Your task to perform on an android device: turn on javascript in the chrome app Image 0: 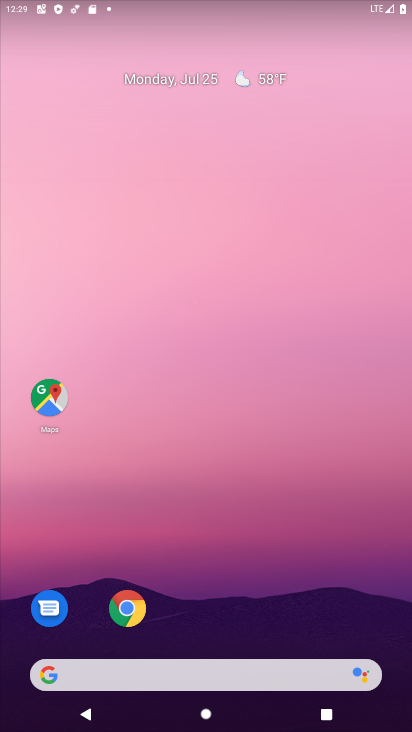
Step 0: click (126, 608)
Your task to perform on an android device: turn on javascript in the chrome app Image 1: 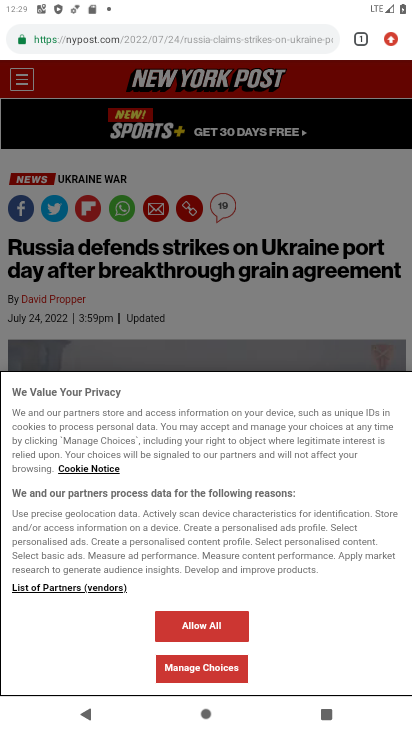
Step 1: click (392, 38)
Your task to perform on an android device: turn on javascript in the chrome app Image 2: 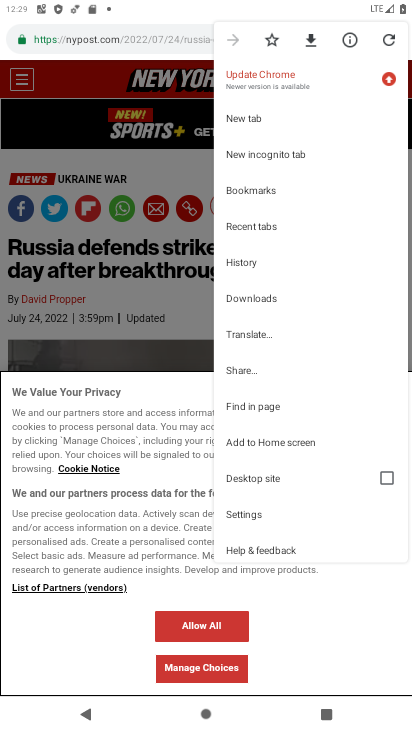
Step 2: click (248, 510)
Your task to perform on an android device: turn on javascript in the chrome app Image 3: 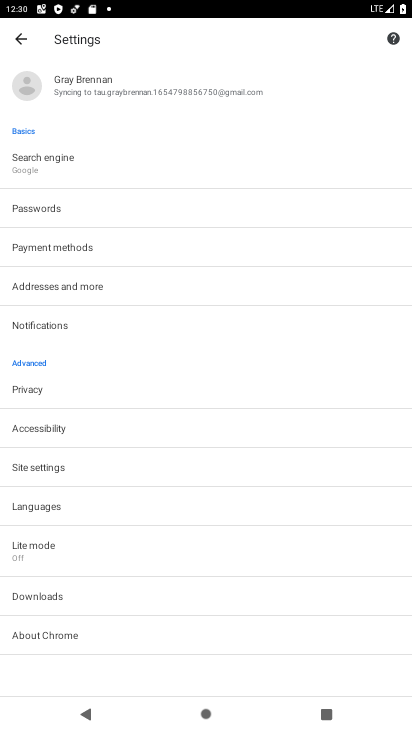
Step 3: click (47, 469)
Your task to perform on an android device: turn on javascript in the chrome app Image 4: 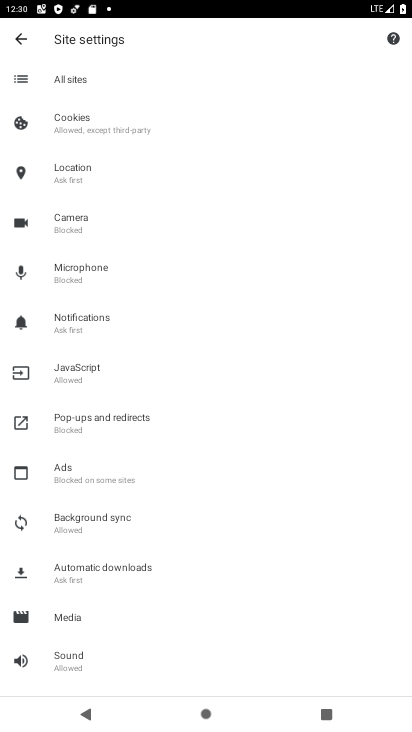
Step 4: click (78, 378)
Your task to perform on an android device: turn on javascript in the chrome app Image 5: 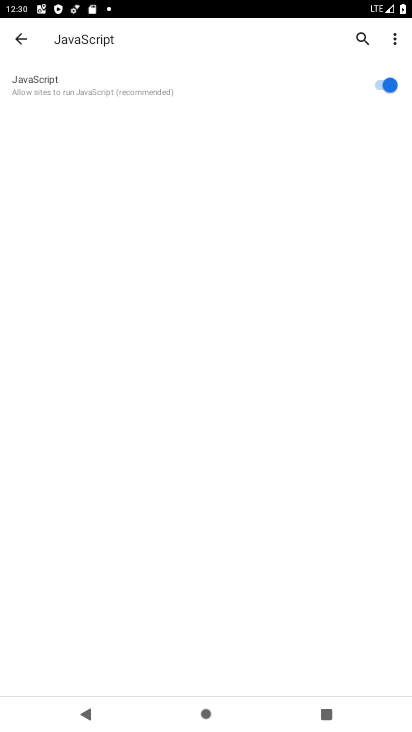
Step 5: task complete